Your task to perform on an android device: Clear the cart on bestbuy. Add "corsair k70" to the cart on bestbuy Image 0: 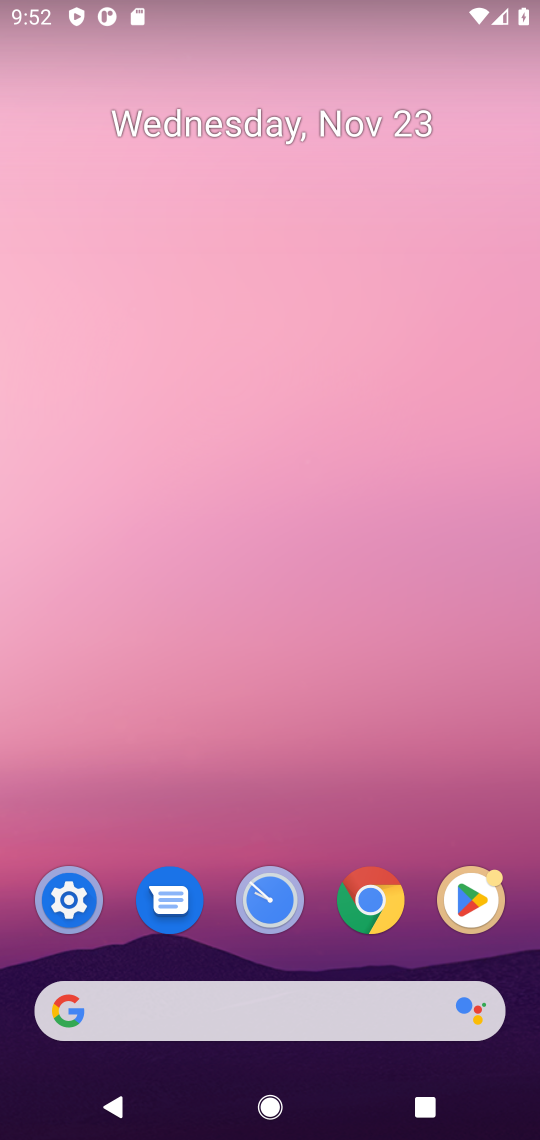
Step 0: click (302, 1028)
Your task to perform on an android device: Clear the cart on bestbuy. Add "corsair k70" to the cart on bestbuy Image 1: 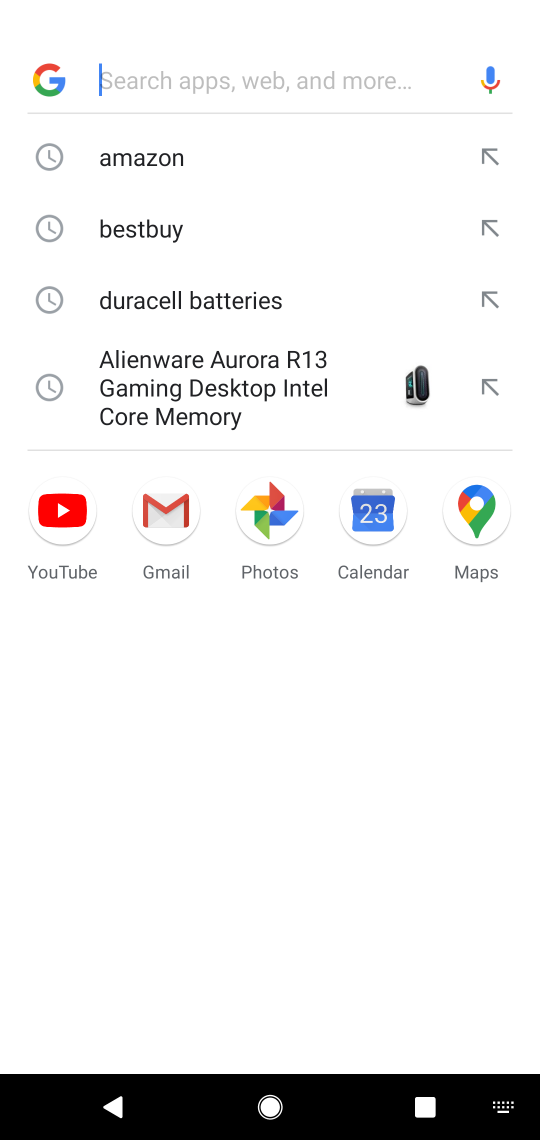
Step 1: type "bestbuy"
Your task to perform on an android device: Clear the cart on bestbuy. Add "corsair k70" to the cart on bestbuy Image 2: 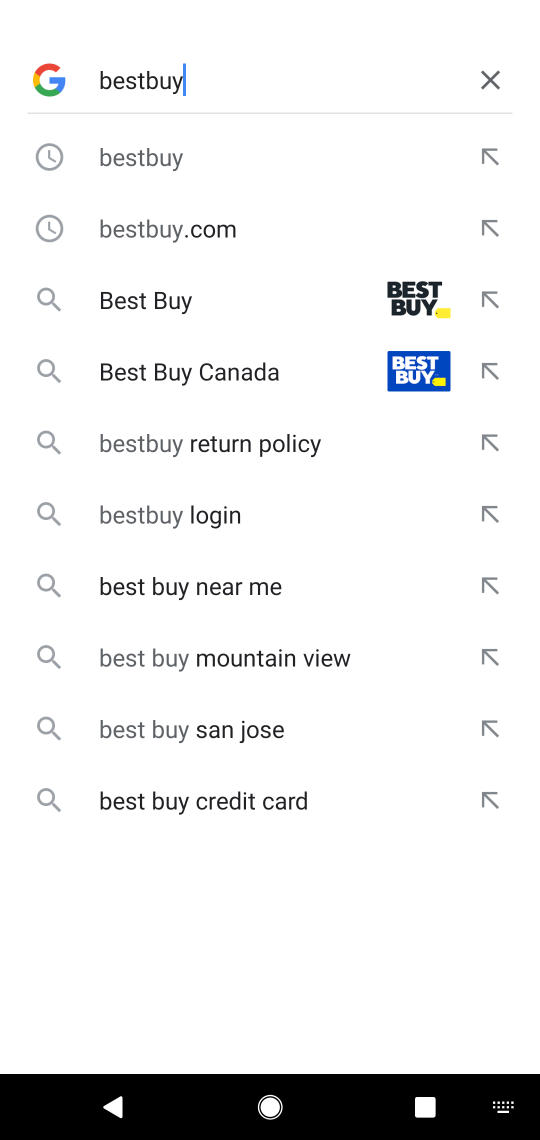
Step 2: click (127, 144)
Your task to perform on an android device: Clear the cart on bestbuy. Add "corsair k70" to the cart on bestbuy Image 3: 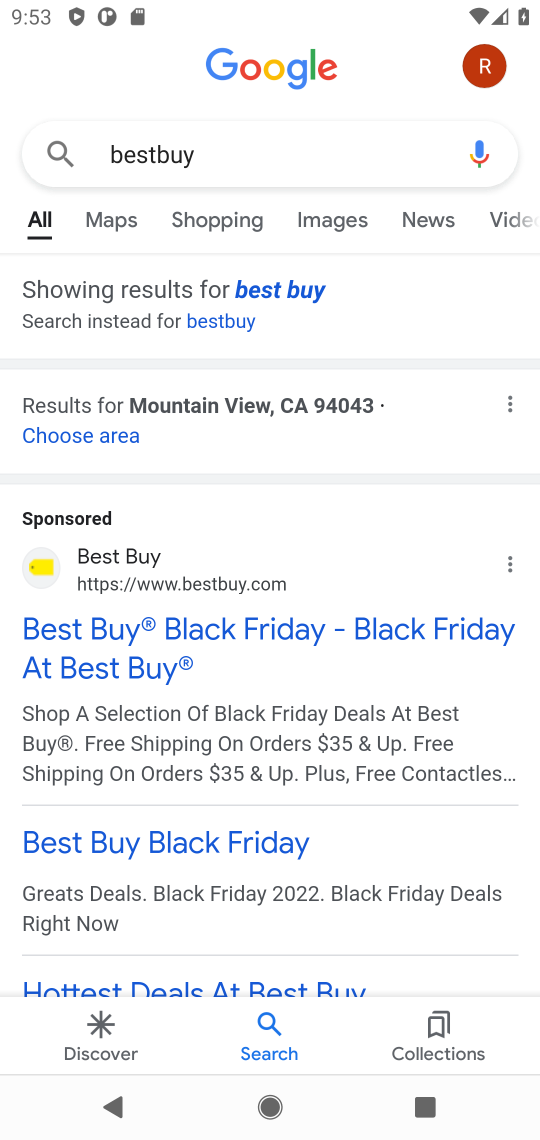
Step 3: click (99, 657)
Your task to perform on an android device: Clear the cart on bestbuy. Add "corsair k70" to the cart on bestbuy Image 4: 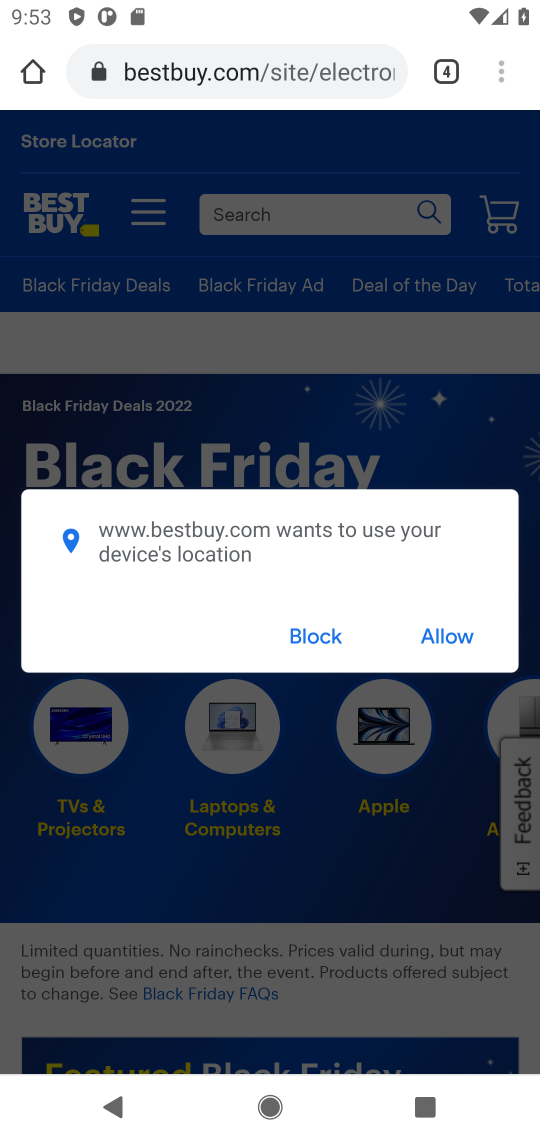
Step 4: click (469, 629)
Your task to perform on an android device: Clear the cart on bestbuy. Add "corsair k70" to the cart on bestbuy Image 5: 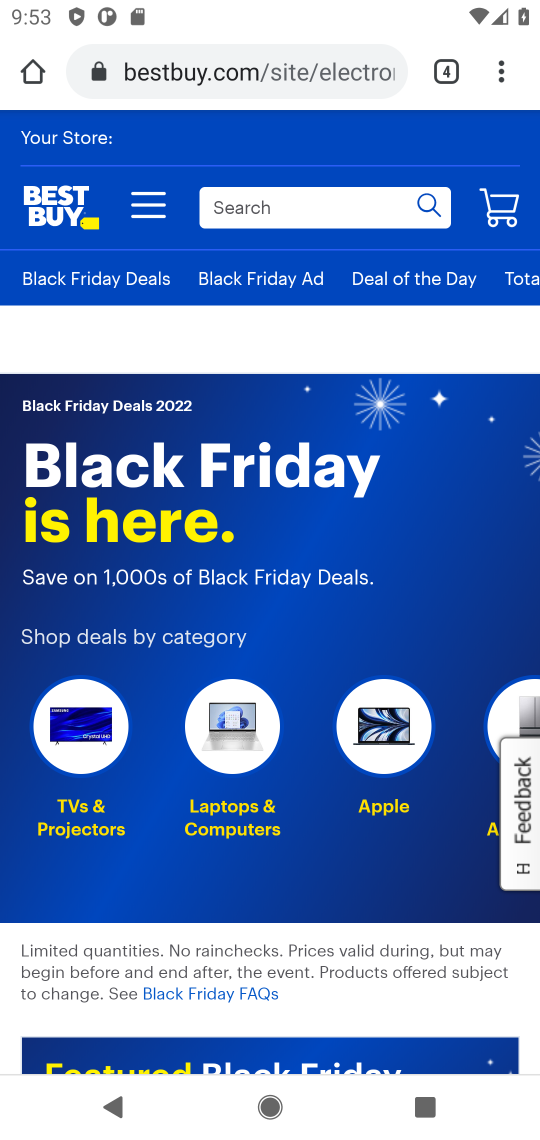
Step 5: task complete